Your task to perform on an android device: Open sound settings Image 0: 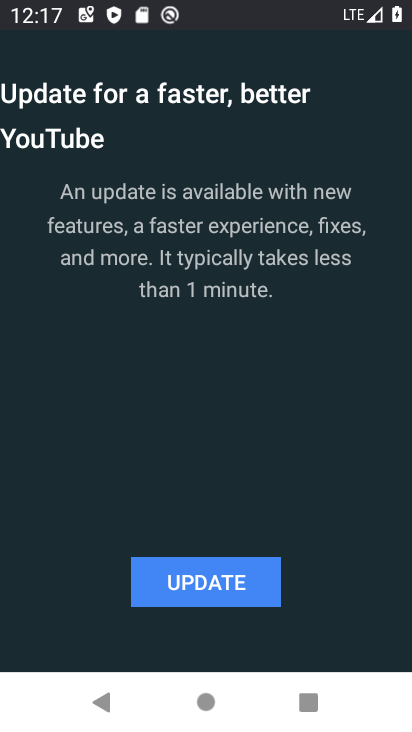
Step 0: press home button
Your task to perform on an android device: Open sound settings Image 1: 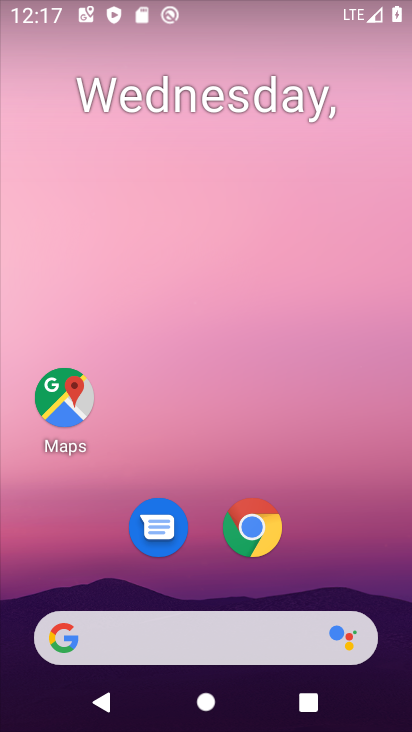
Step 1: drag from (336, 653) to (318, 36)
Your task to perform on an android device: Open sound settings Image 2: 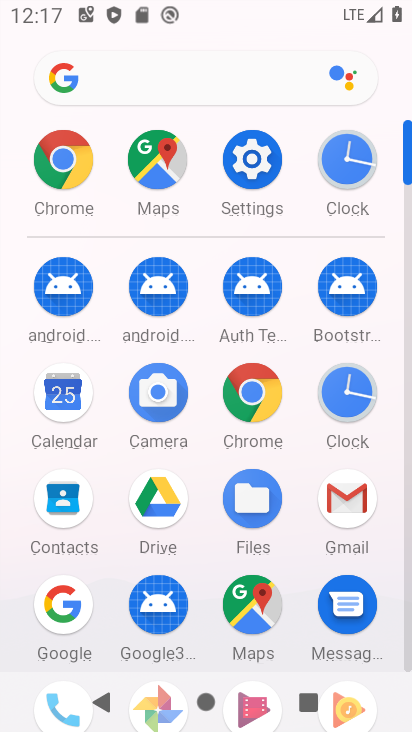
Step 2: click (269, 176)
Your task to perform on an android device: Open sound settings Image 3: 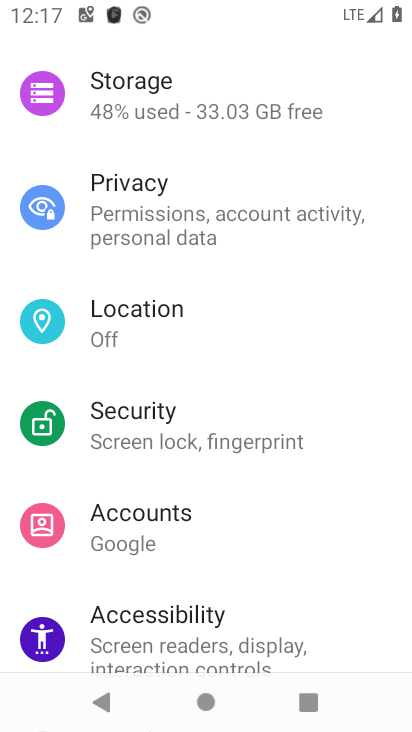
Step 3: drag from (269, 176) to (250, 560)
Your task to perform on an android device: Open sound settings Image 4: 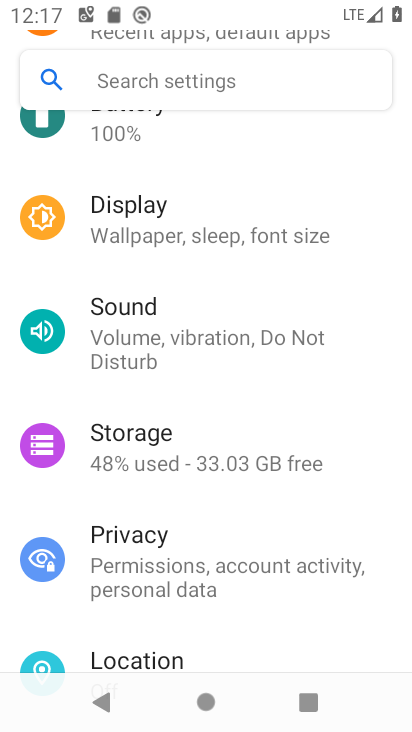
Step 4: click (171, 346)
Your task to perform on an android device: Open sound settings Image 5: 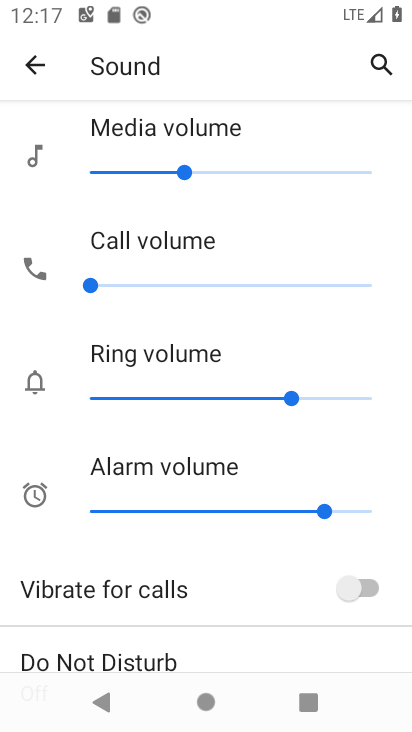
Step 5: task complete